Your task to perform on an android device: turn notification dots on Image 0: 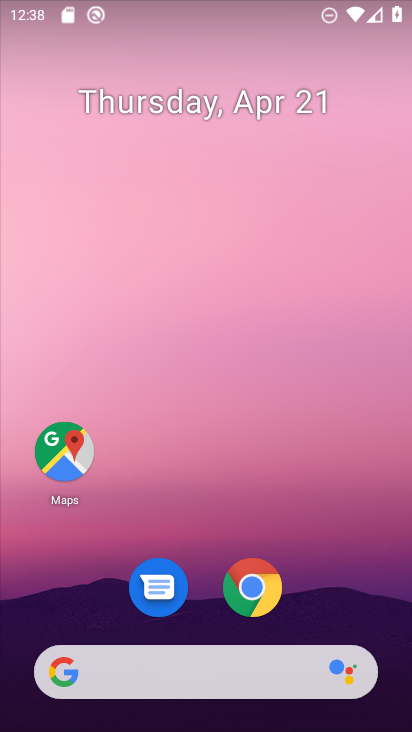
Step 0: drag from (197, 439) to (217, 2)
Your task to perform on an android device: turn notification dots on Image 1: 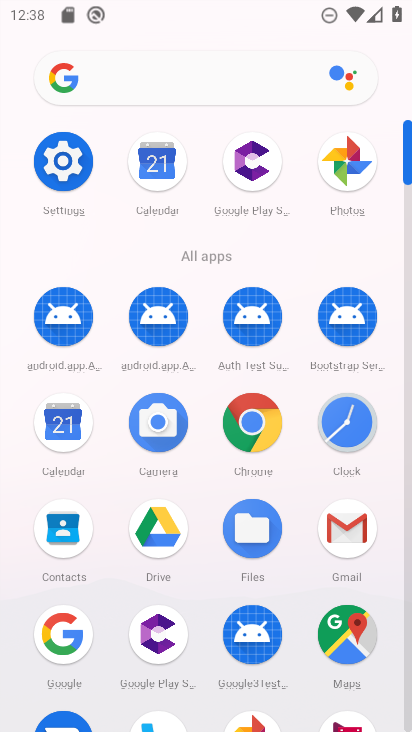
Step 1: click (63, 165)
Your task to perform on an android device: turn notification dots on Image 2: 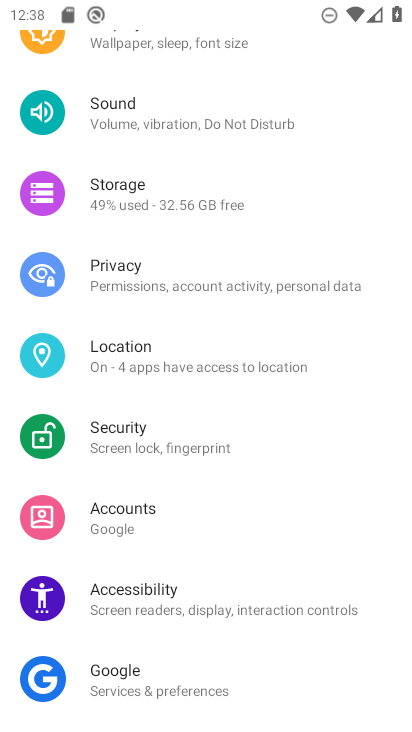
Step 2: drag from (289, 306) to (288, 587)
Your task to perform on an android device: turn notification dots on Image 3: 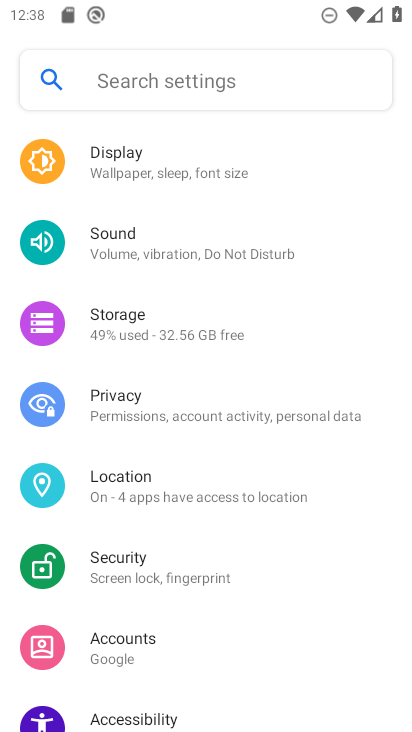
Step 3: drag from (159, 210) to (180, 675)
Your task to perform on an android device: turn notification dots on Image 4: 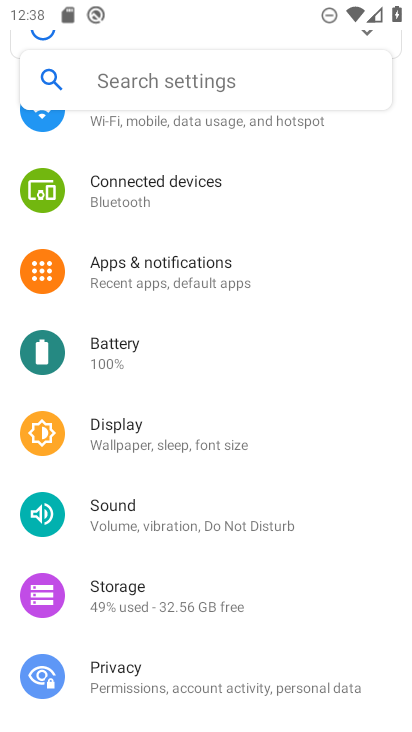
Step 4: click (176, 260)
Your task to perform on an android device: turn notification dots on Image 5: 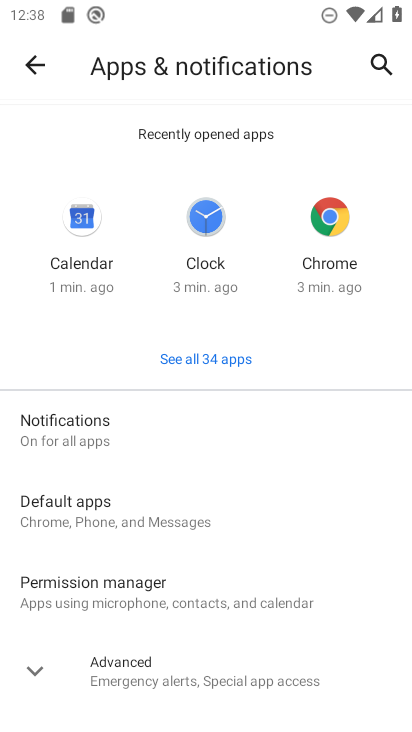
Step 5: drag from (174, 551) to (135, 285)
Your task to perform on an android device: turn notification dots on Image 6: 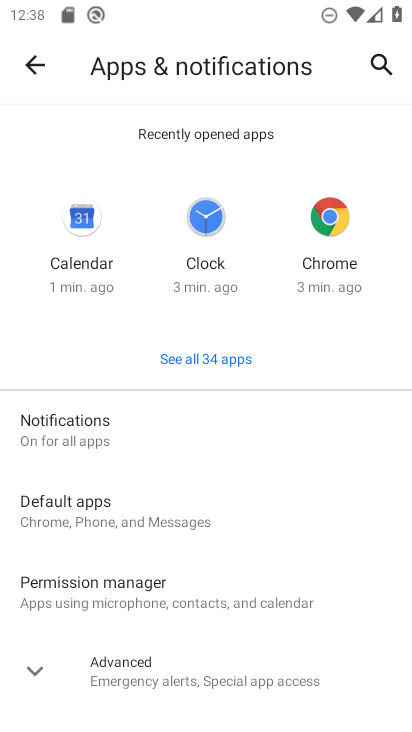
Step 6: click (64, 426)
Your task to perform on an android device: turn notification dots on Image 7: 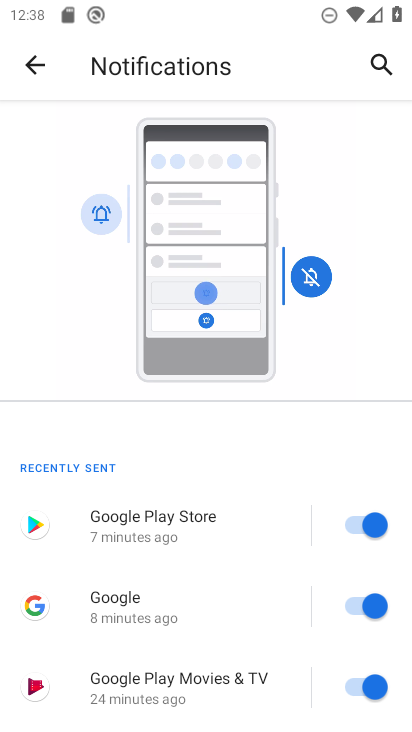
Step 7: drag from (211, 563) to (179, 258)
Your task to perform on an android device: turn notification dots on Image 8: 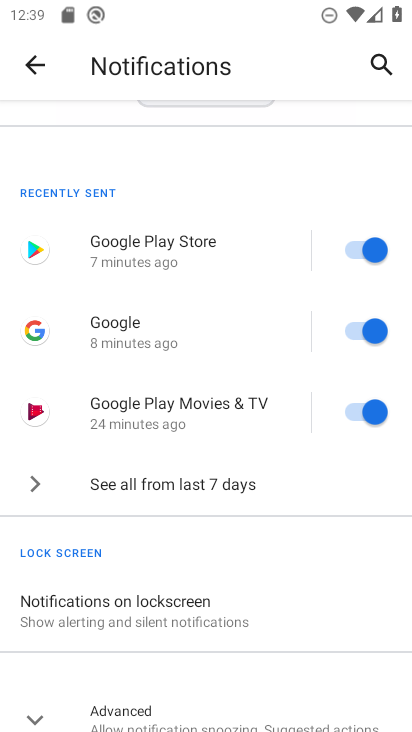
Step 8: drag from (251, 579) to (251, 246)
Your task to perform on an android device: turn notification dots on Image 9: 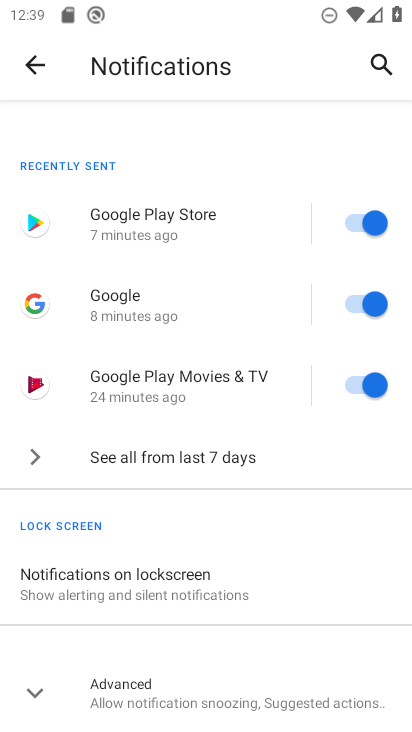
Step 9: click (41, 687)
Your task to perform on an android device: turn notification dots on Image 10: 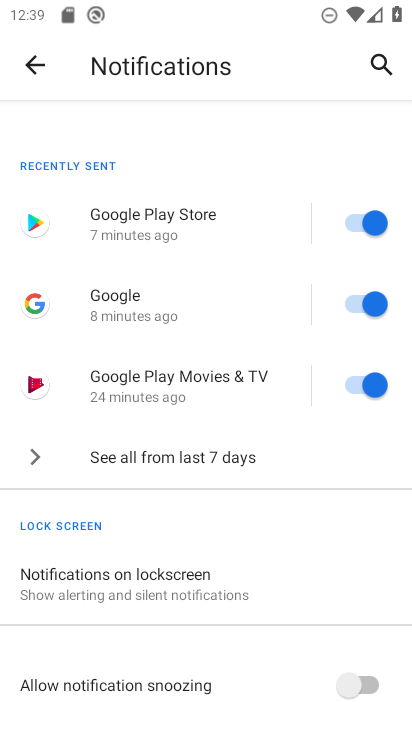
Step 10: task complete